Your task to perform on an android device: Open Maps and search for coffee Image 0: 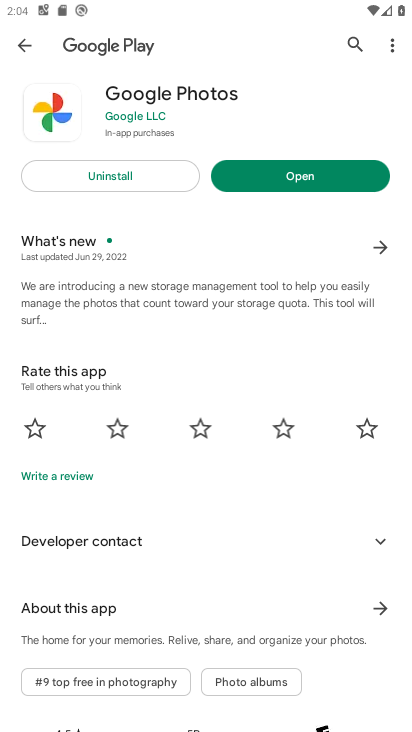
Step 0: press home button
Your task to perform on an android device: Open Maps and search for coffee Image 1: 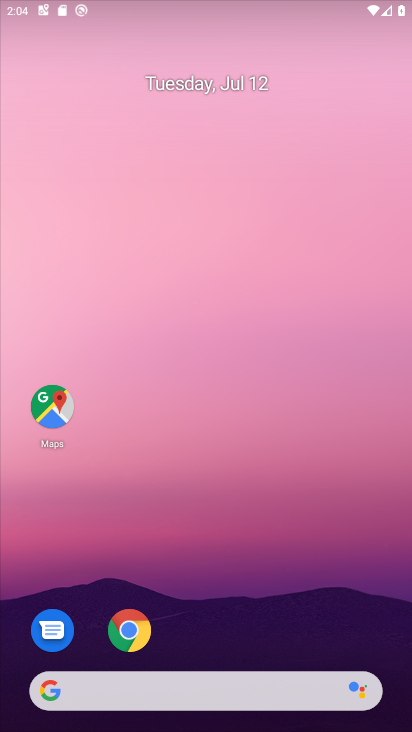
Step 1: drag from (207, 619) to (232, 163)
Your task to perform on an android device: Open Maps and search for coffee Image 2: 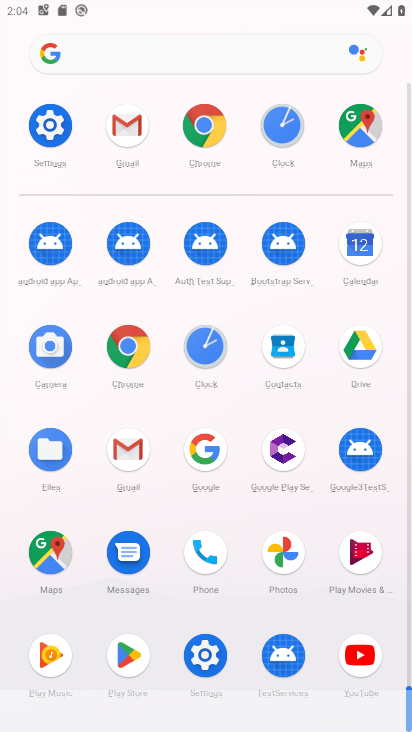
Step 2: click (44, 546)
Your task to perform on an android device: Open Maps and search for coffee Image 3: 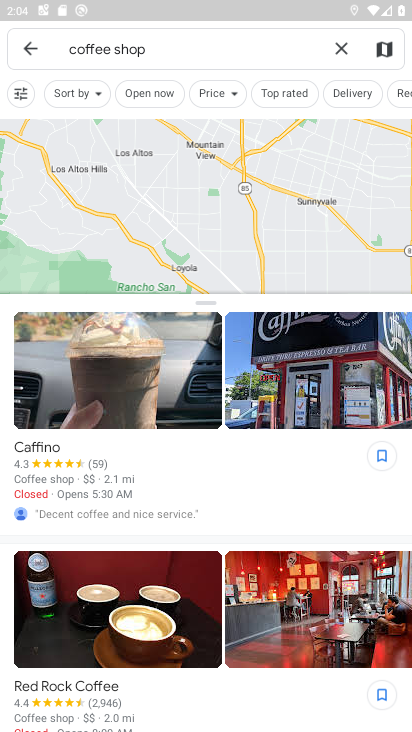
Step 3: click (350, 40)
Your task to perform on an android device: Open Maps and search for coffee Image 4: 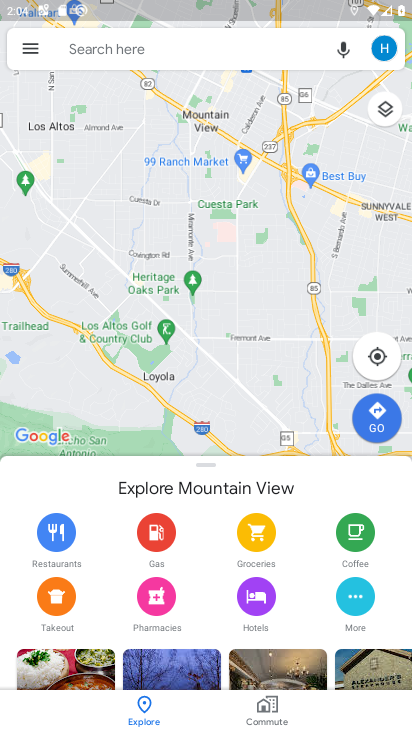
Step 4: click (272, 53)
Your task to perform on an android device: Open Maps and search for coffee Image 5: 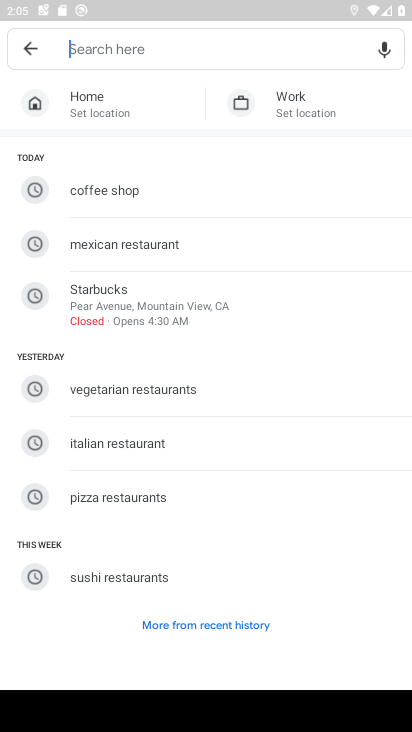
Step 5: type "coffee"
Your task to perform on an android device: Open Maps and search for coffee Image 6: 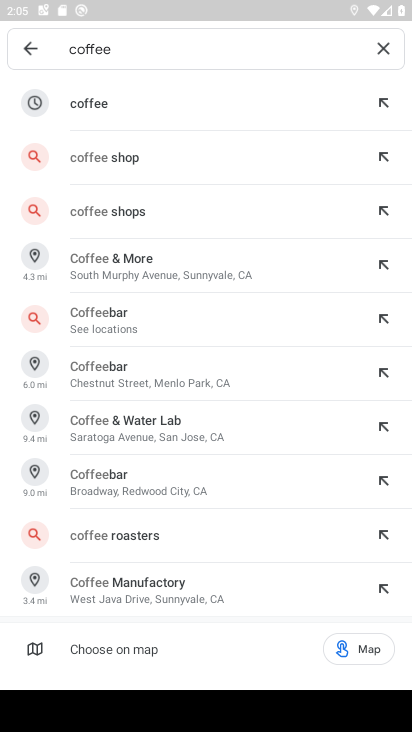
Step 6: click (169, 97)
Your task to perform on an android device: Open Maps and search for coffee Image 7: 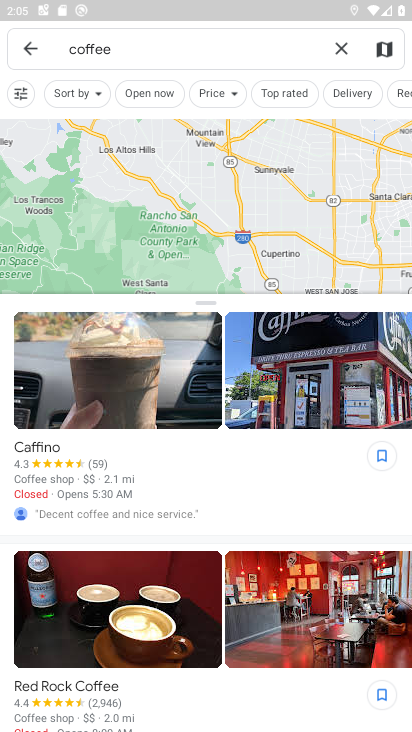
Step 7: task complete